Your task to perform on an android device: Open Google Maps Image 0: 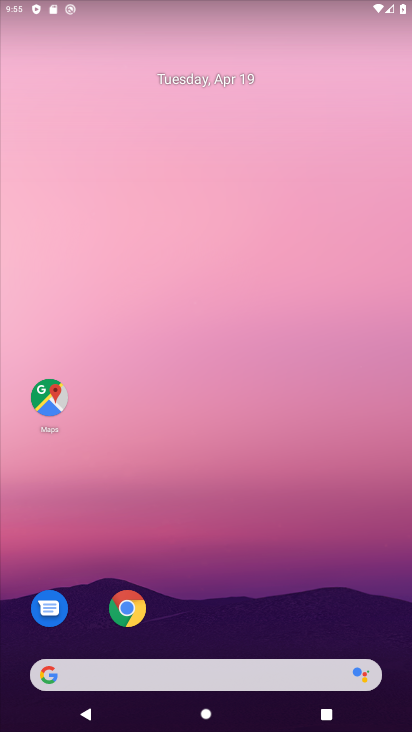
Step 0: click (55, 406)
Your task to perform on an android device: Open Google Maps Image 1: 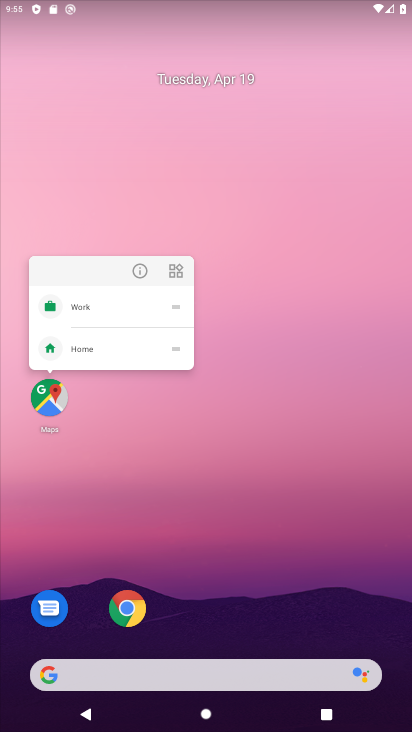
Step 1: click (51, 405)
Your task to perform on an android device: Open Google Maps Image 2: 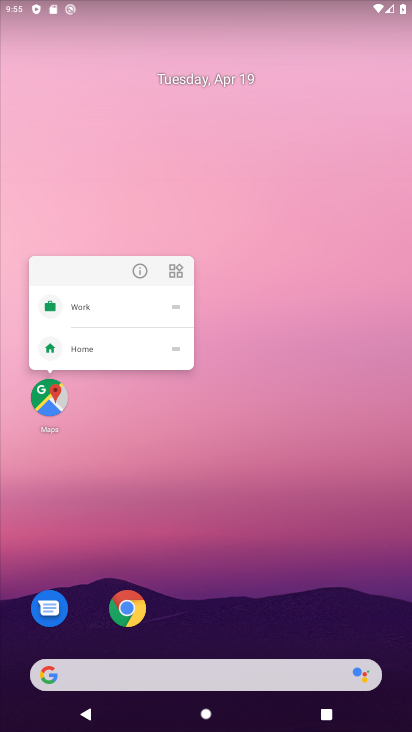
Step 2: click (49, 403)
Your task to perform on an android device: Open Google Maps Image 3: 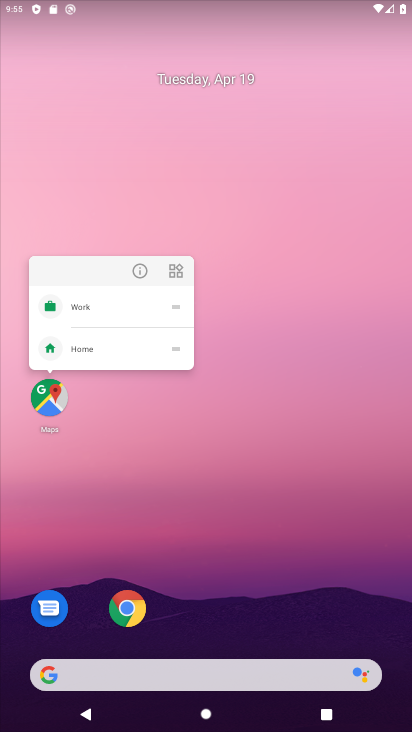
Step 3: click (49, 403)
Your task to perform on an android device: Open Google Maps Image 4: 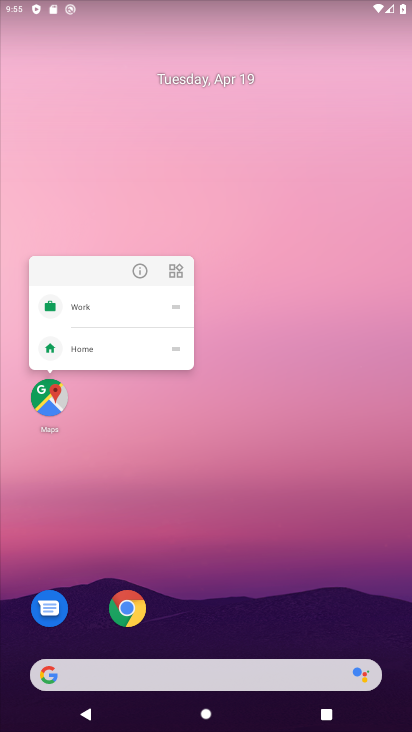
Step 4: click (49, 403)
Your task to perform on an android device: Open Google Maps Image 5: 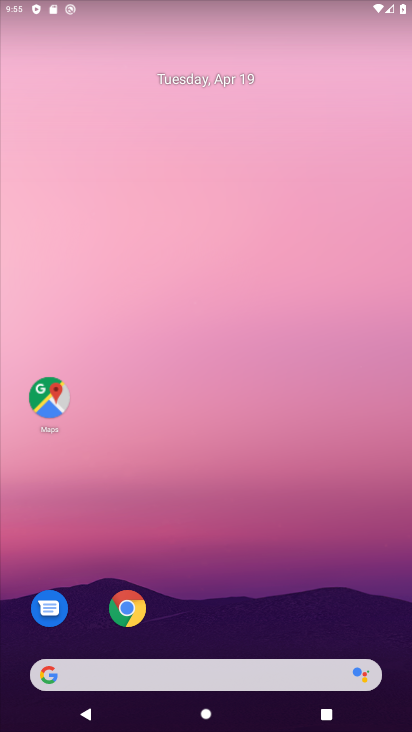
Step 5: click (49, 403)
Your task to perform on an android device: Open Google Maps Image 6: 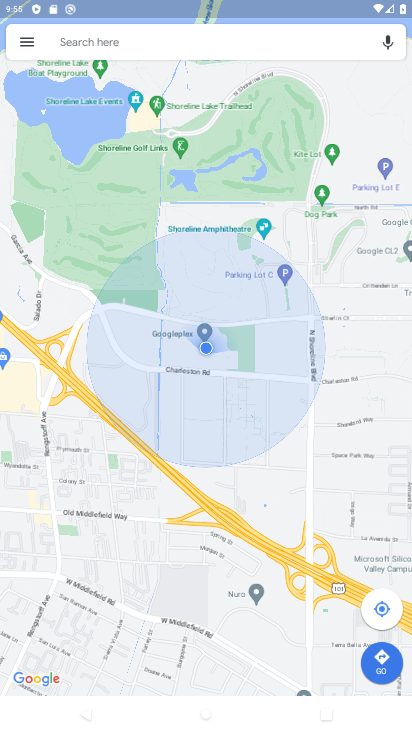
Step 6: task complete